Your task to perform on an android device: Open sound settings Image 0: 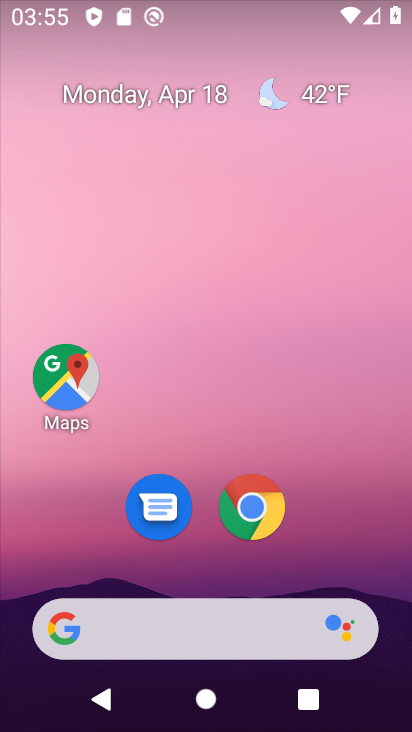
Step 0: drag from (220, 534) to (269, 108)
Your task to perform on an android device: Open sound settings Image 1: 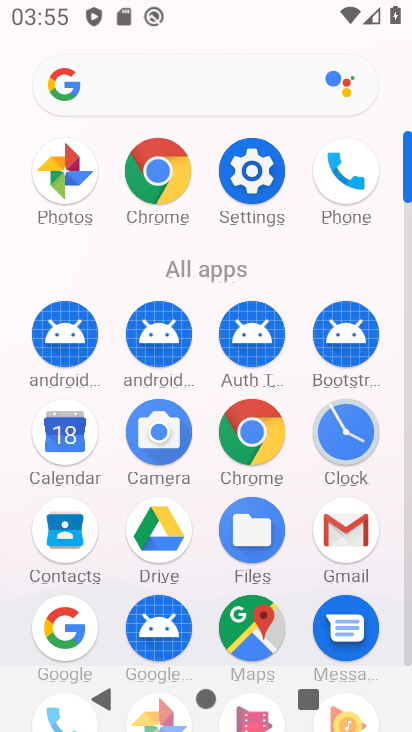
Step 1: click (246, 179)
Your task to perform on an android device: Open sound settings Image 2: 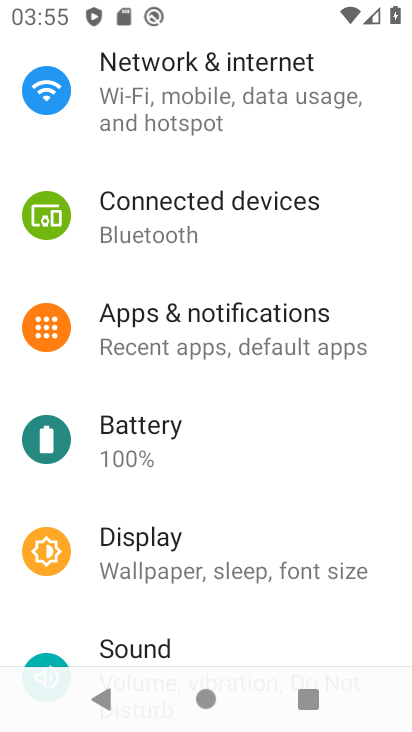
Step 2: drag from (155, 625) to (186, 379)
Your task to perform on an android device: Open sound settings Image 3: 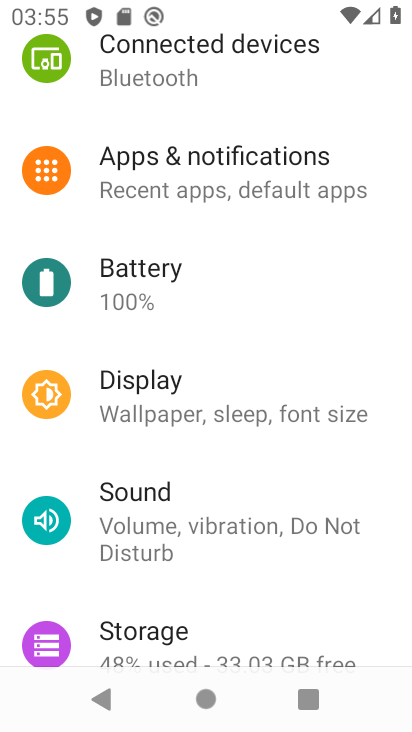
Step 3: click (164, 520)
Your task to perform on an android device: Open sound settings Image 4: 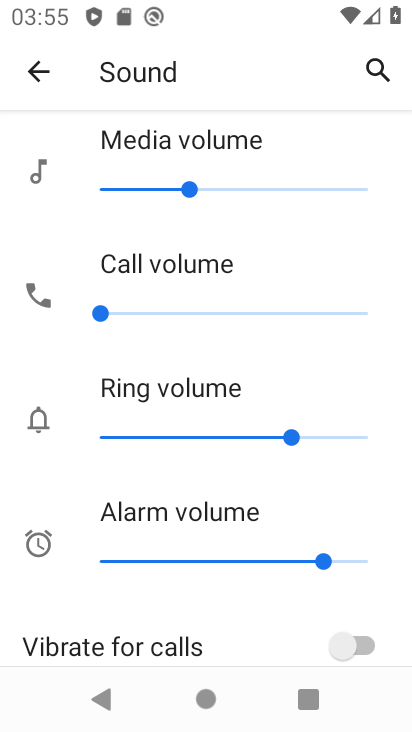
Step 4: task complete